Your task to perform on an android device: Google the capital of Panama Image 0: 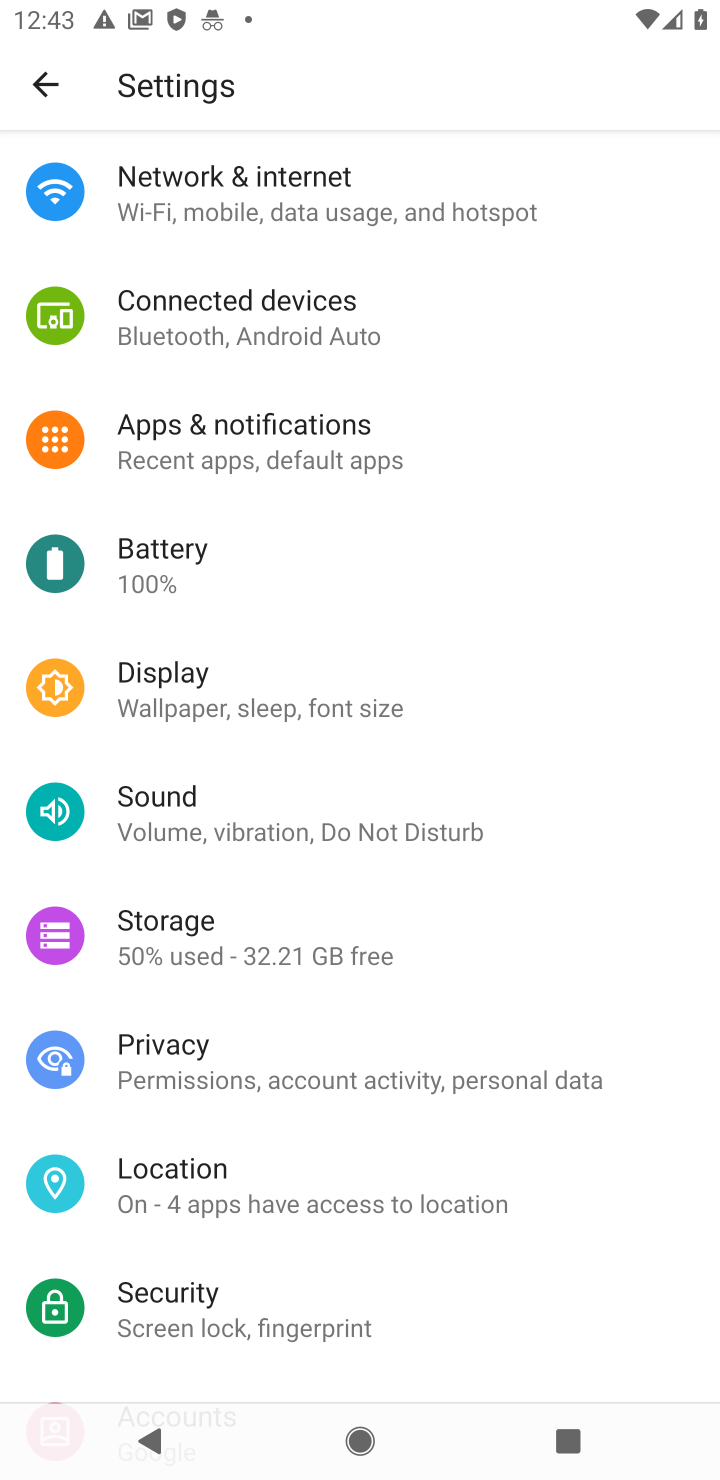
Step 0: press home button
Your task to perform on an android device: Google the capital of Panama Image 1: 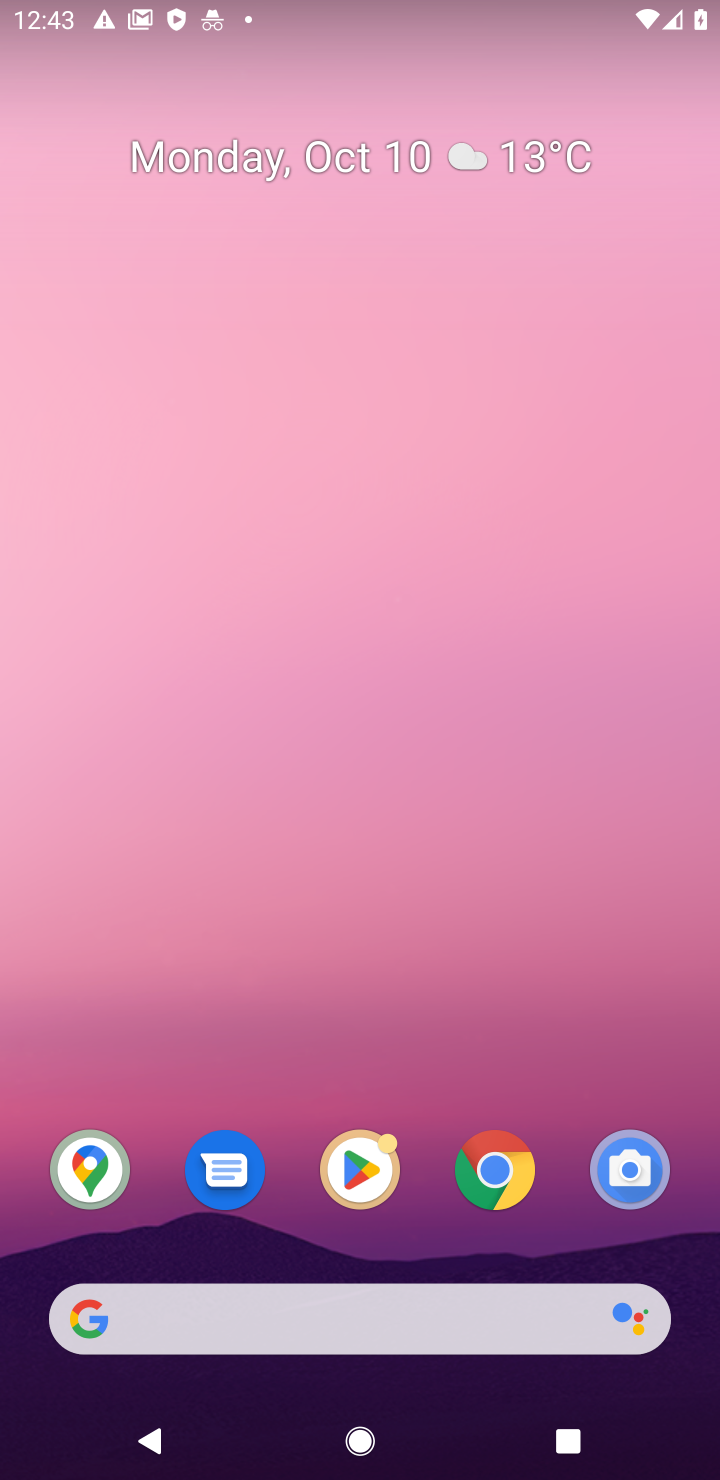
Step 1: click (494, 1174)
Your task to perform on an android device: Google the capital of Panama Image 2: 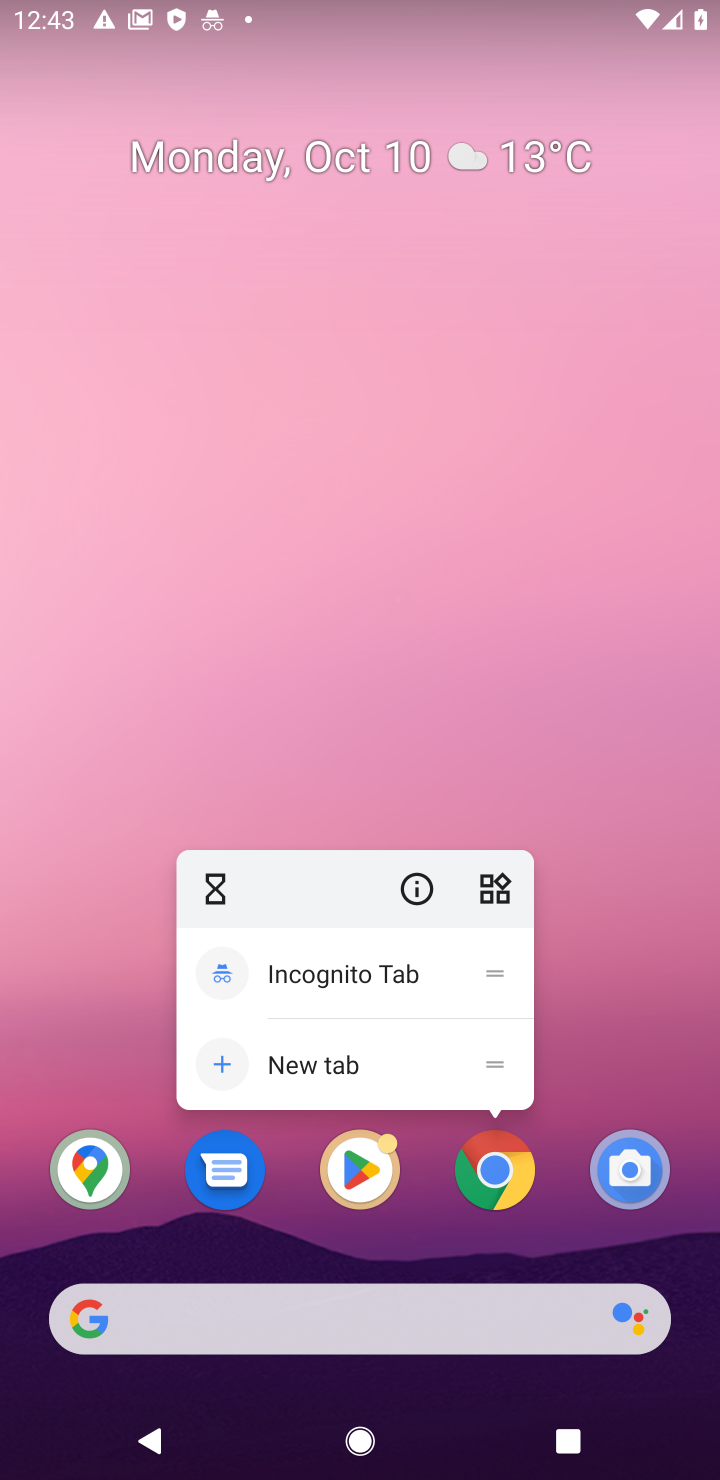
Step 2: click (494, 1174)
Your task to perform on an android device: Google the capital of Panama Image 3: 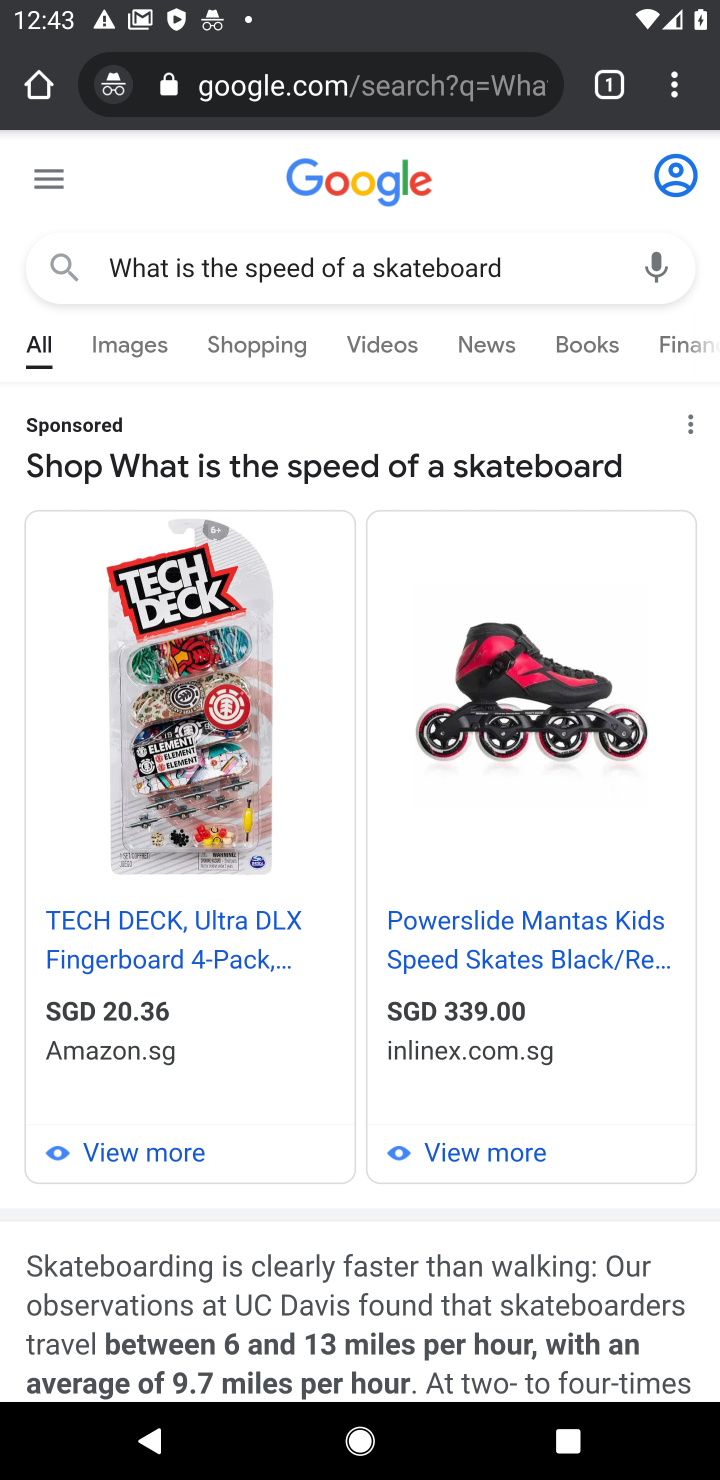
Step 3: click (428, 84)
Your task to perform on an android device: Google the capital of Panama Image 4: 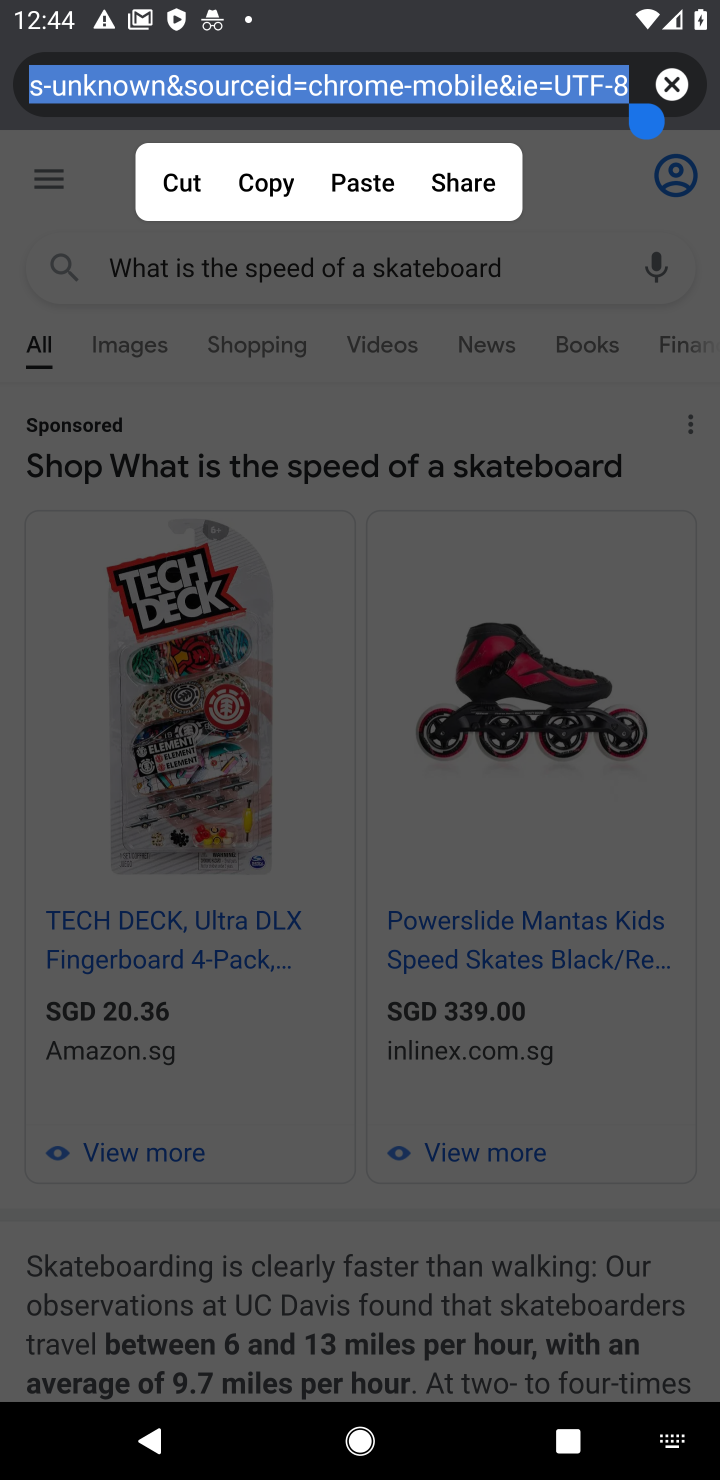
Step 4: click (665, 84)
Your task to perform on an android device: Google the capital of Panama Image 5: 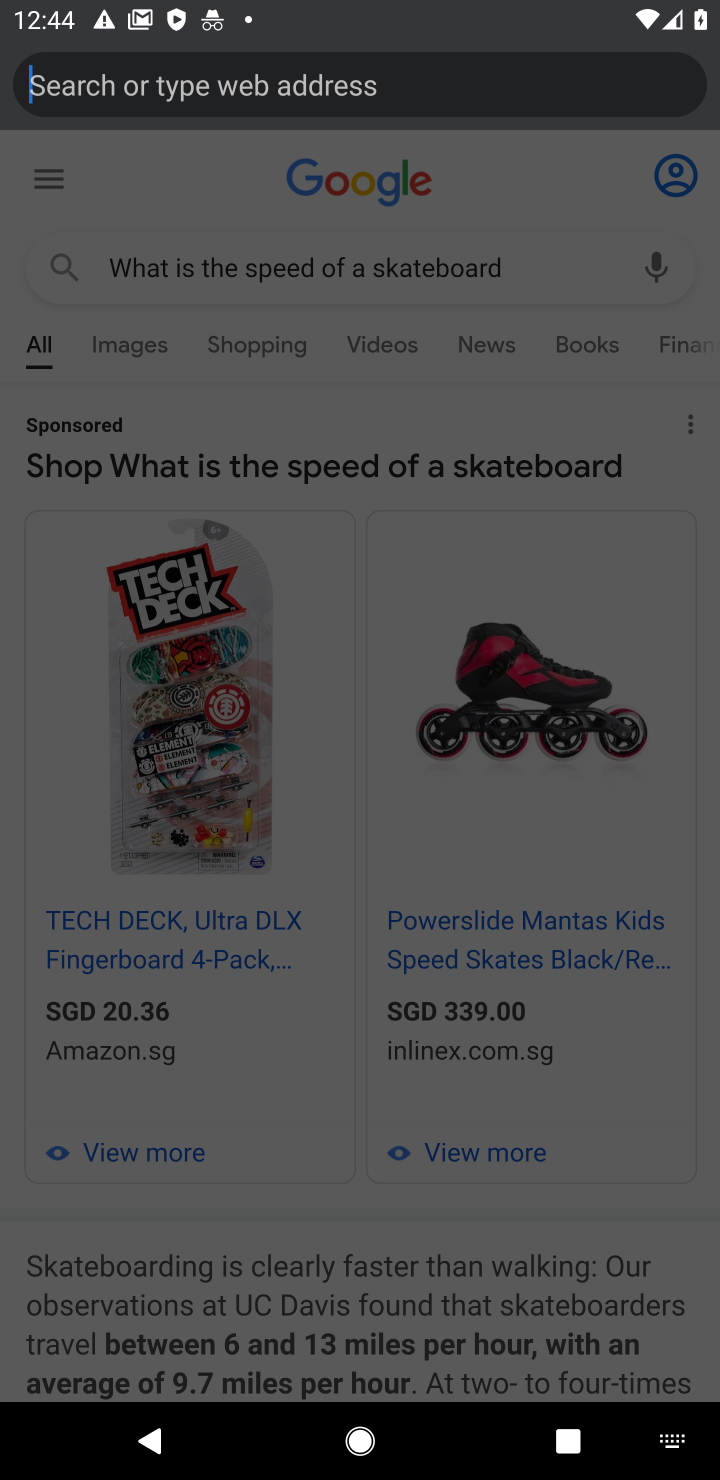
Step 5: type "capital of Panama"
Your task to perform on an android device: Google the capital of Panama Image 6: 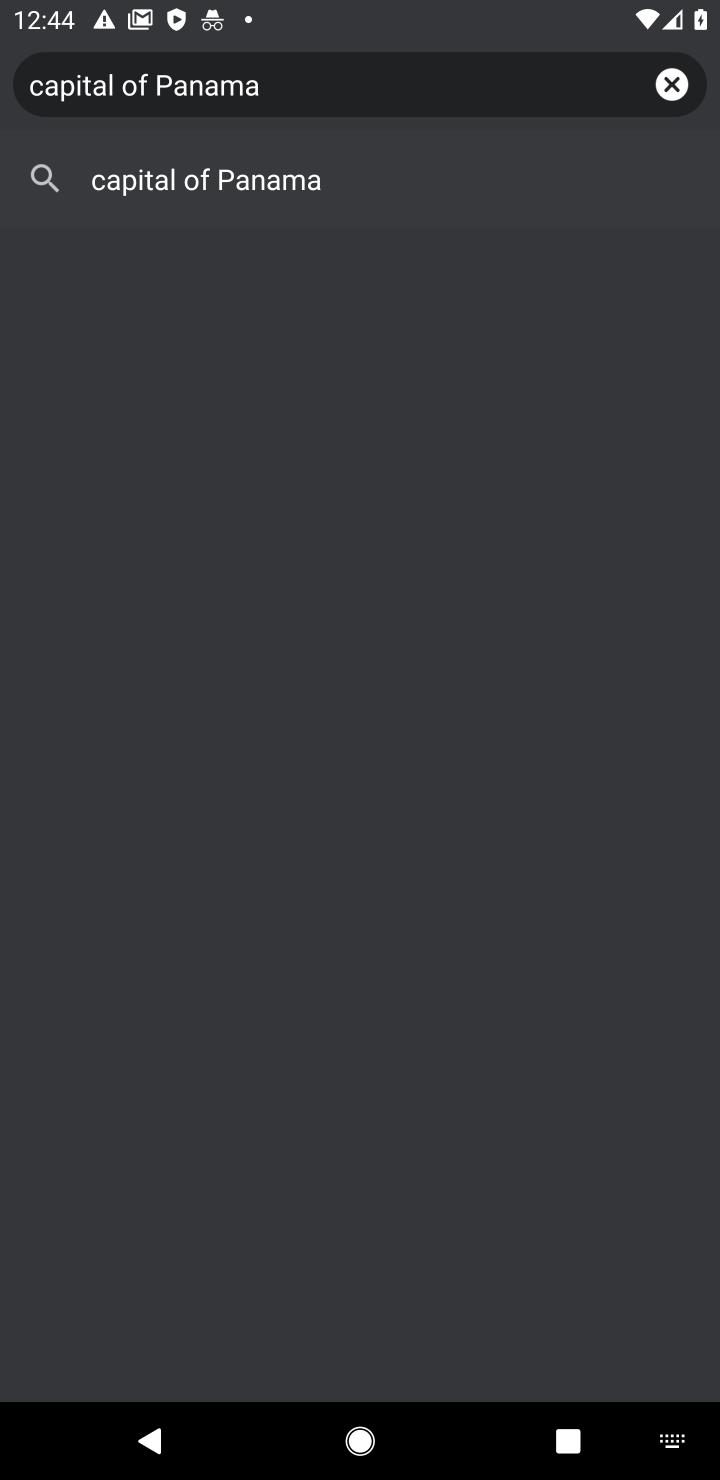
Step 6: click (135, 173)
Your task to perform on an android device: Google the capital of Panama Image 7: 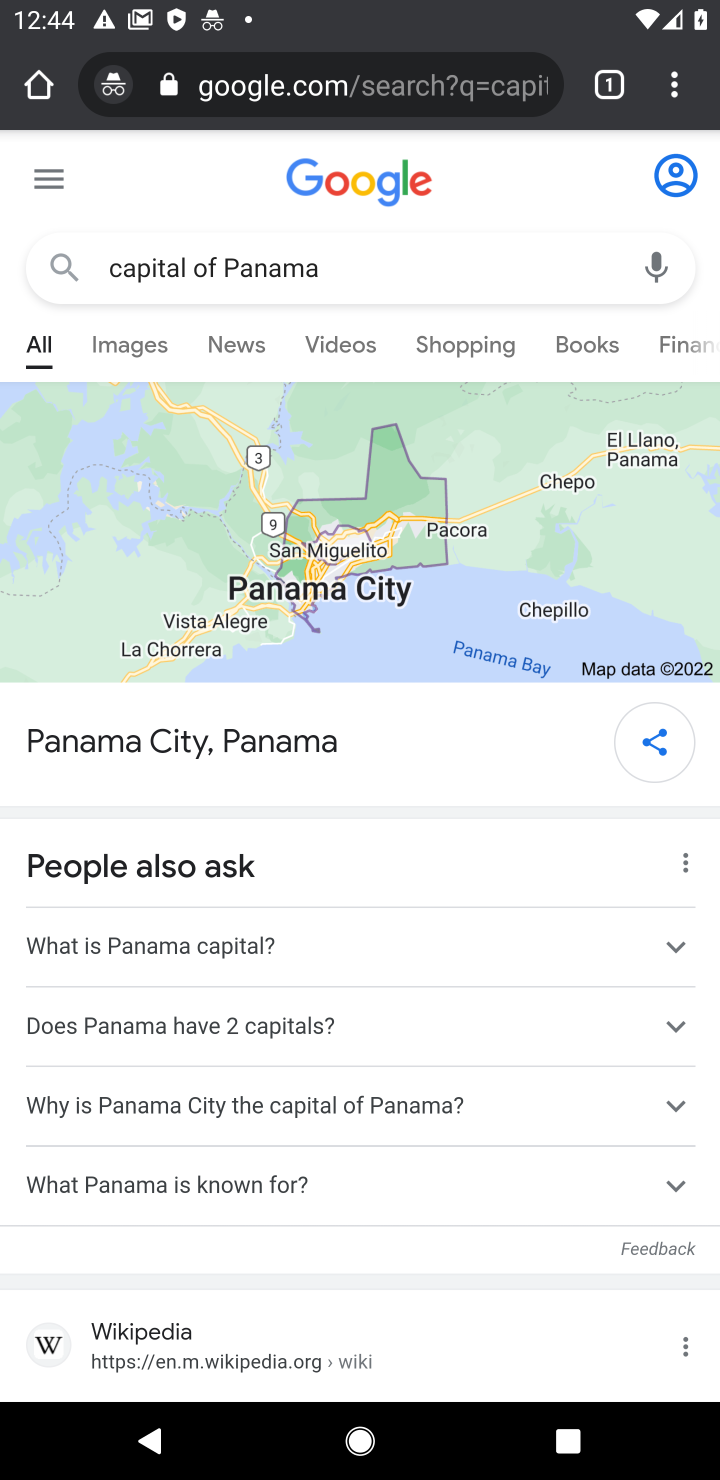
Step 7: task complete